Your task to perform on an android device: install app "Walmart Shopping & Grocery" Image 0: 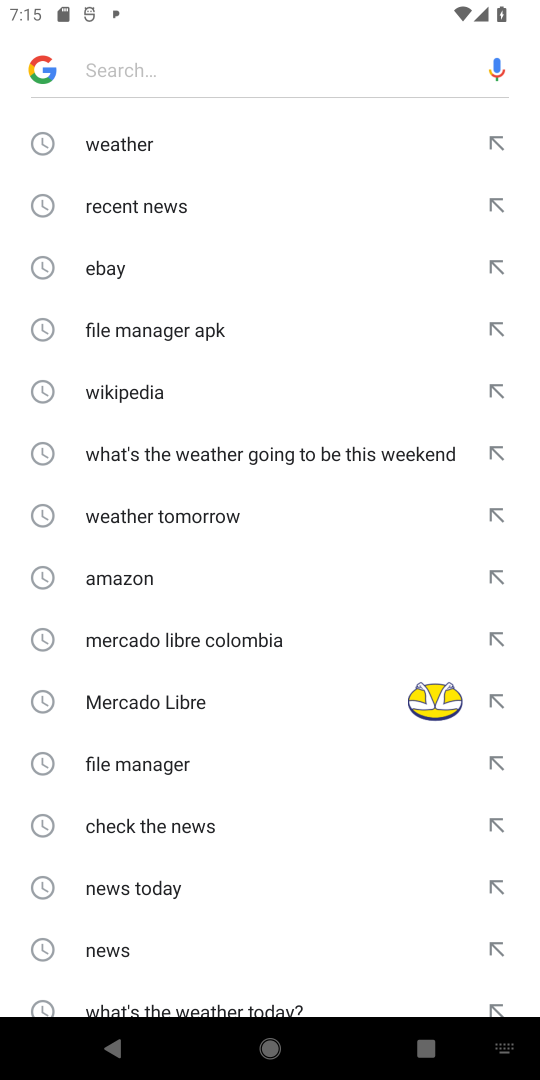
Step 0: press home button
Your task to perform on an android device: install app "Walmart Shopping & Grocery" Image 1: 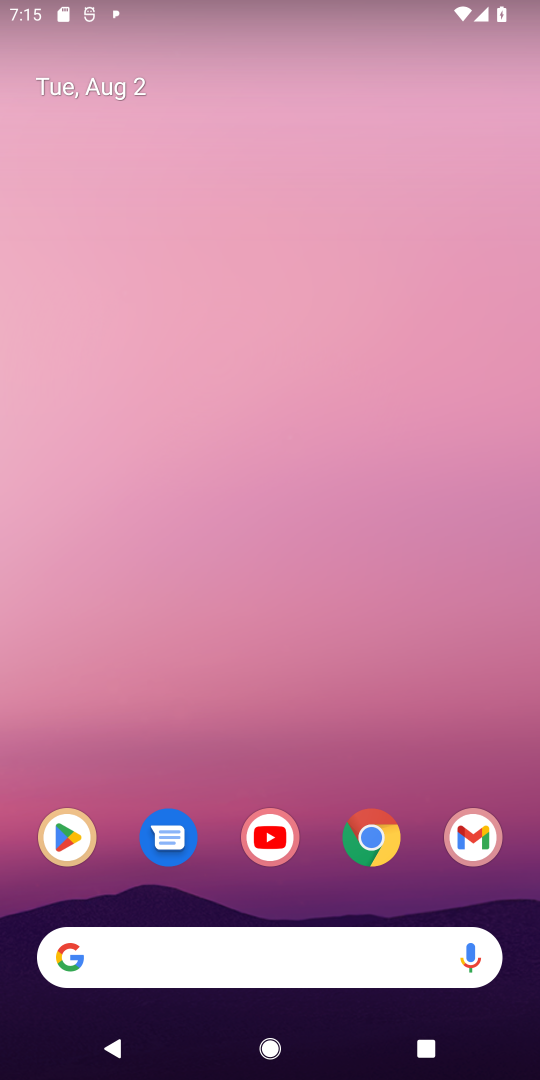
Step 1: click (73, 850)
Your task to perform on an android device: install app "Walmart Shopping & Grocery" Image 2: 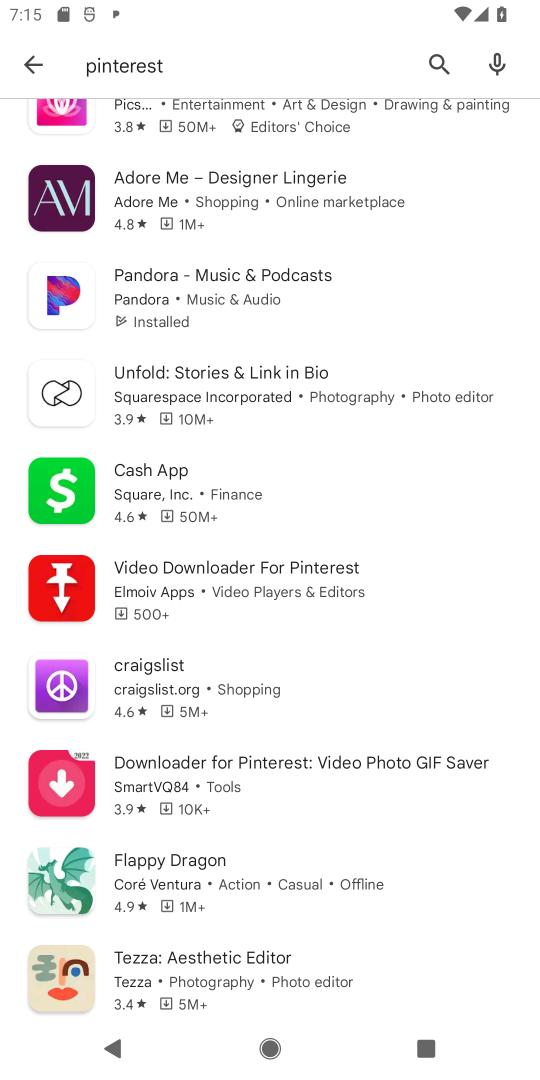
Step 2: click (444, 66)
Your task to perform on an android device: install app "Walmart Shopping & Grocery" Image 3: 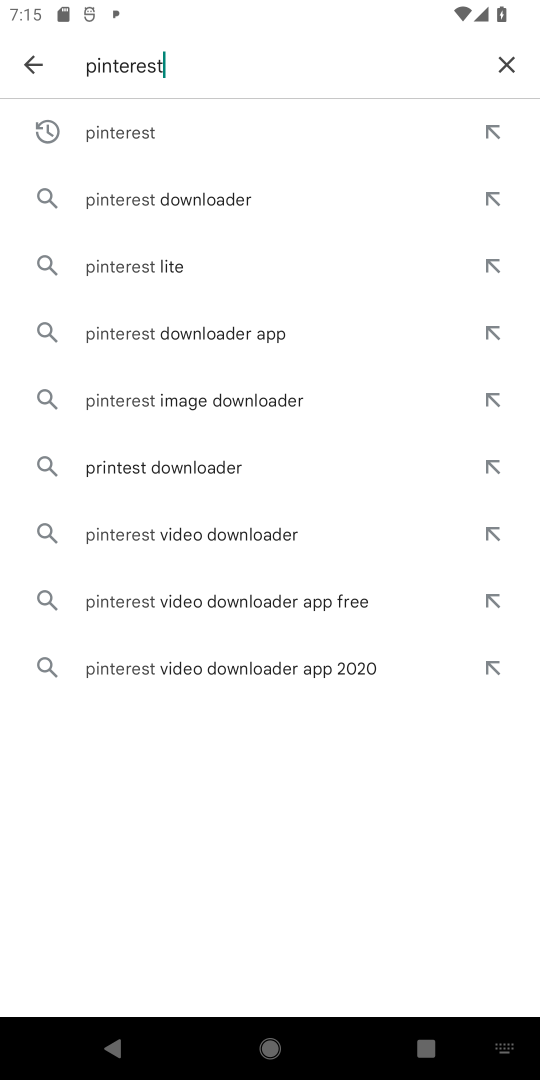
Step 3: click (506, 74)
Your task to perform on an android device: install app "Walmart Shopping & Grocery" Image 4: 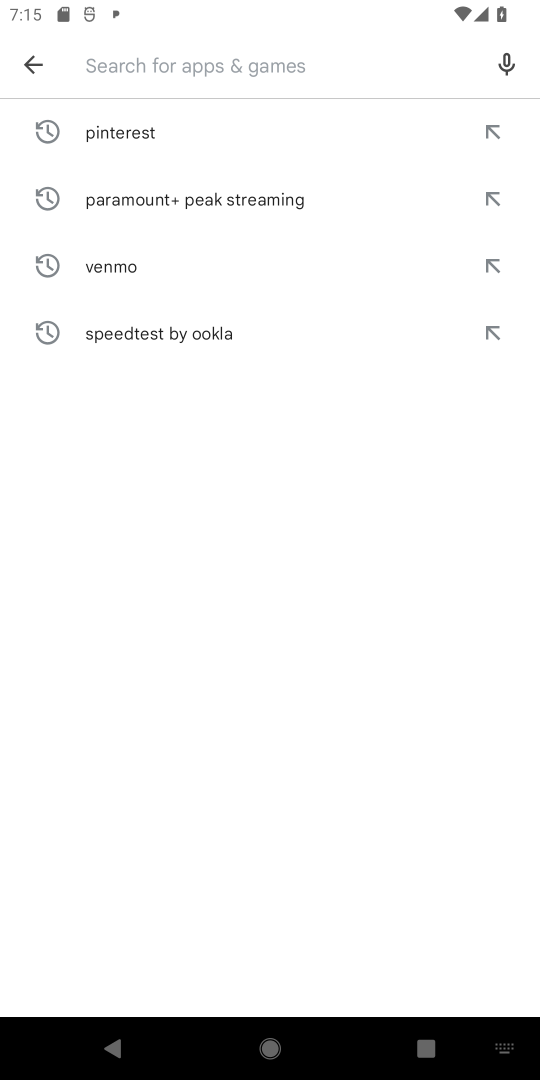
Step 4: type "Walmart Shopping & Grocery"
Your task to perform on an android device: install app "Walmart Shopping & Grocery" Image 5: 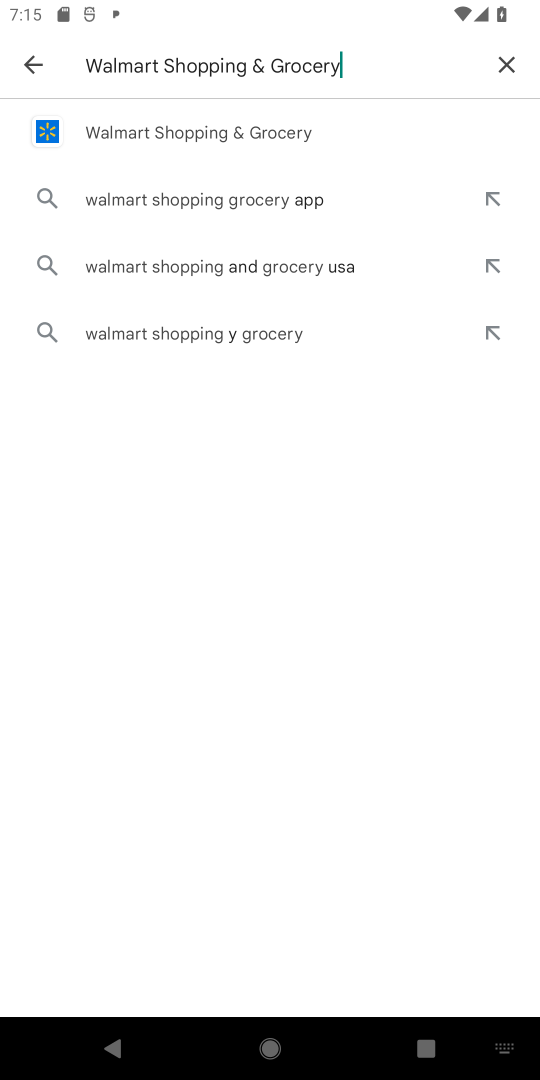
Step 5: click (148, 133)
Your task to perform on an android device: install app "Walmart Shopping & Grocery" Image 6: 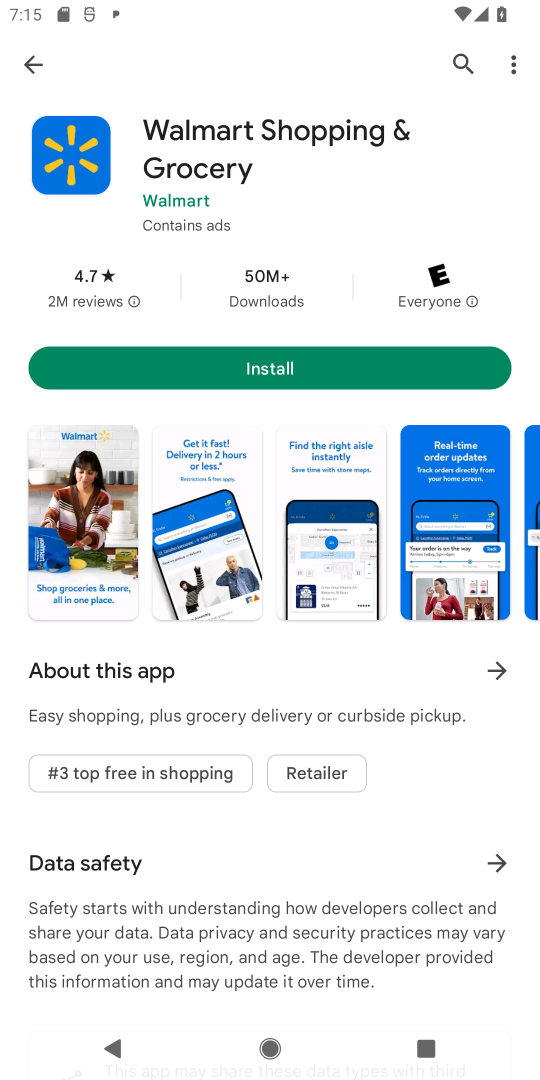
Step 6: click (225, 359)
Your task to perform on an android device: install app "Walmart Shopping & Grocery" Image 7: 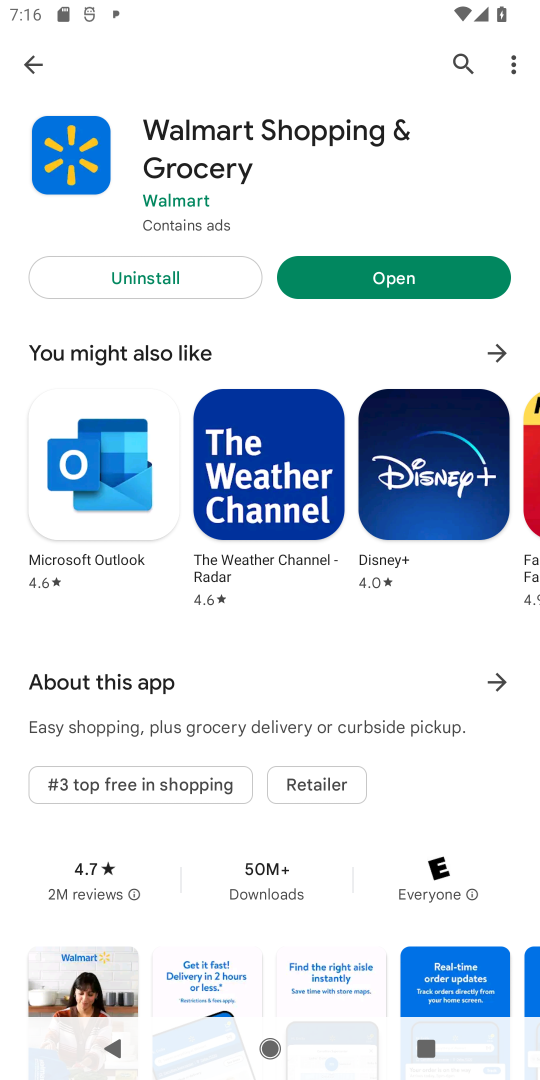
Step 7: task complete